Your task to perform on an android device: see tabs open on other devices in the chrome app Image 0: 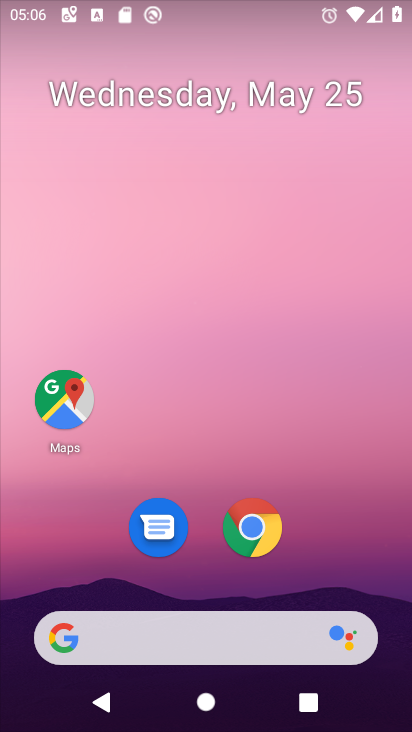
Step 0: drag from (197, 512) to (260, 91)
Your task to perform on an android device: see tabs open on other devices in the chrome app Image 1: 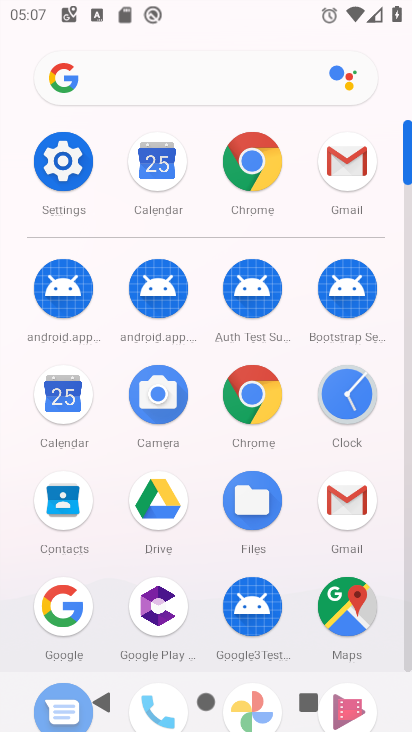
Step 1: click (249, 176)
Your task to perform on an android device: see tabs open on other devices in the chrome app Image 2: 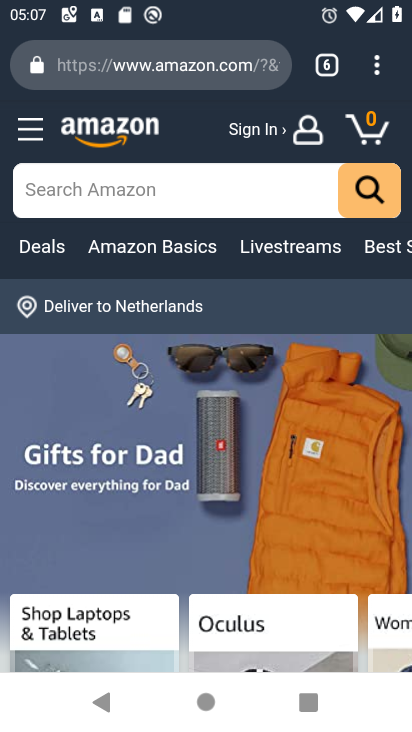
Step 2: click (375, 71)
Your task to perform on an android device: see tabs open on other devices in the chrome app Image 3: 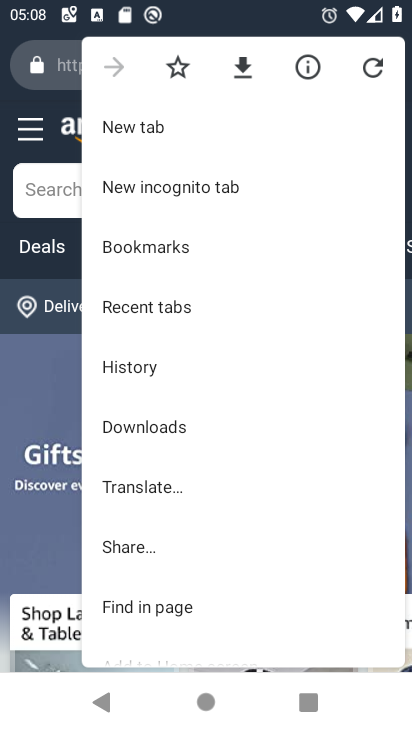
Step 3: click (184, 303)
Your task to perform on an android device: see tabs open on other devices in the chrome app Image 4: 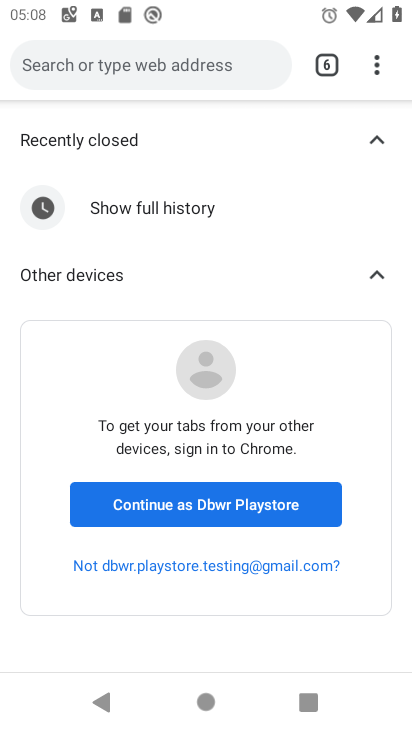
Step 4: task complete